Your task to perform on an android device: turn off translation in the chrome app Image 0: 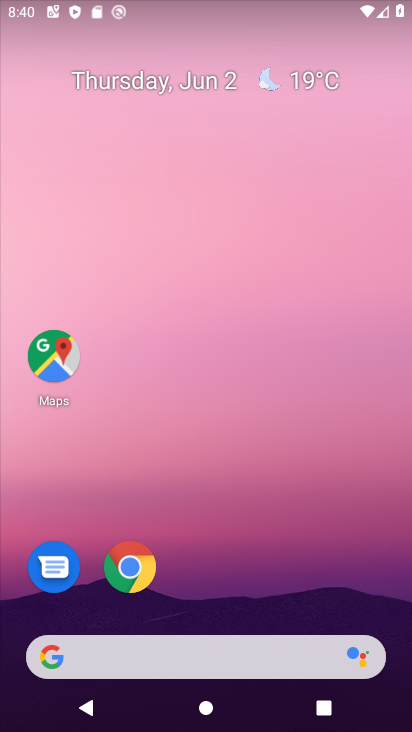
Step 0: click (132, 577)
Your task to perform on an android device: turn off translation in the chrome app Image 1: 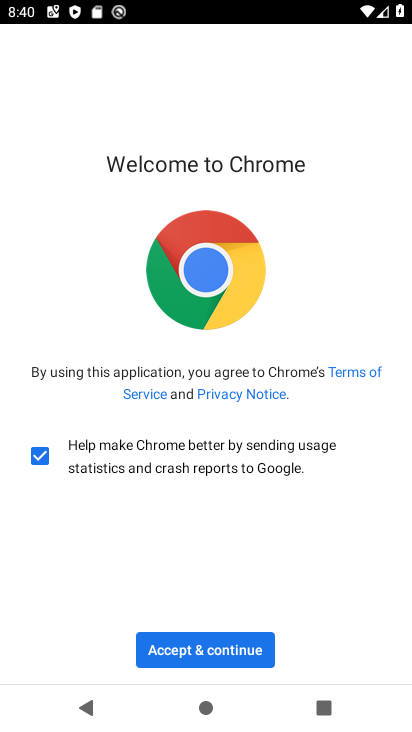
Step 1: click (246, 653)
Your task to perform on an android device: turn off translation in the chrome app Image 2: 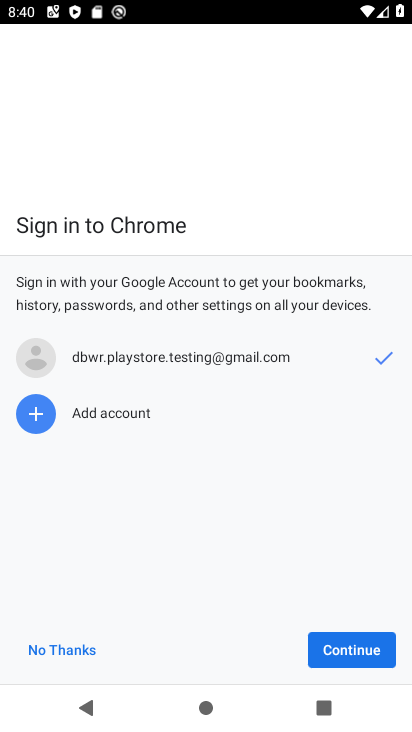
Step 2: click (352, 650)
Your task to perform on an android device: turn off translation in the chrome app Image 3: 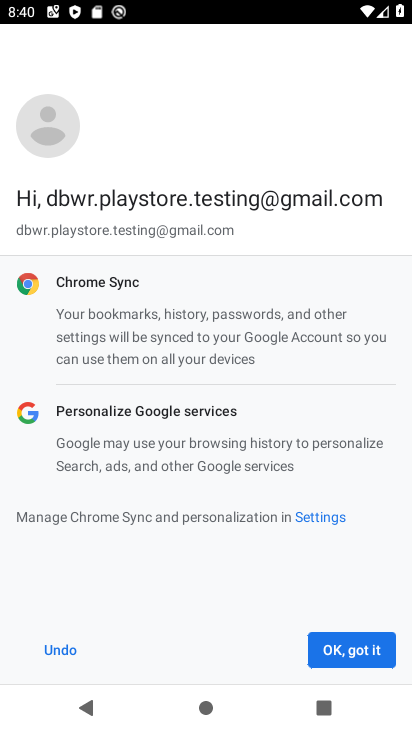
Step 3: click (342, 648)
Your task to perform on an android device: turn off translation in the chrome app Image 4: 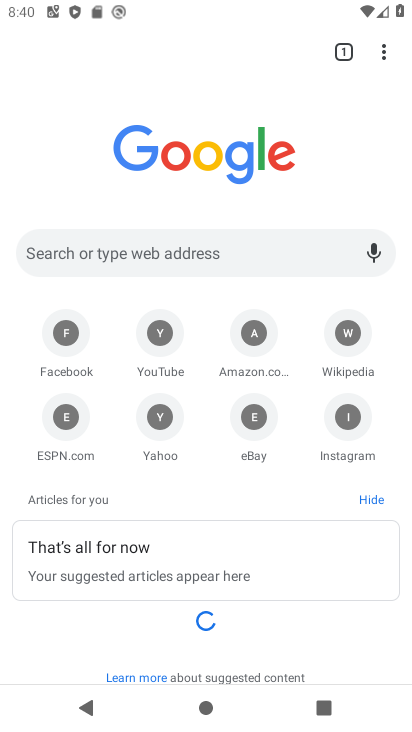
Step 4: click (390, 56)
Your task to perform on an android device: turn off translation in the chrome app Image 5: 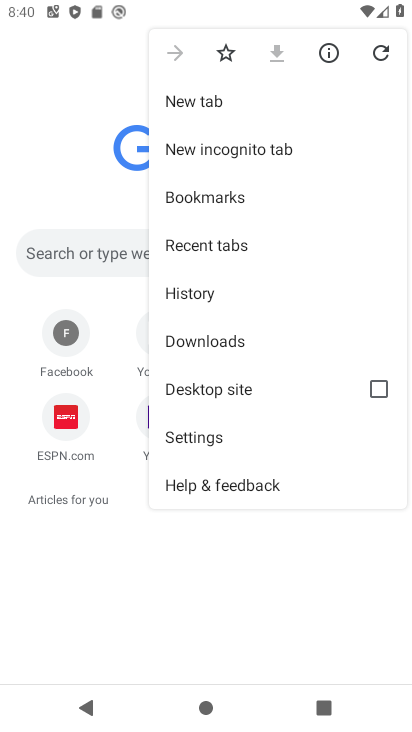
Step 5: click (208, 448)
Your task to perform on an android device: turn off translation in the chrome app Image 6: 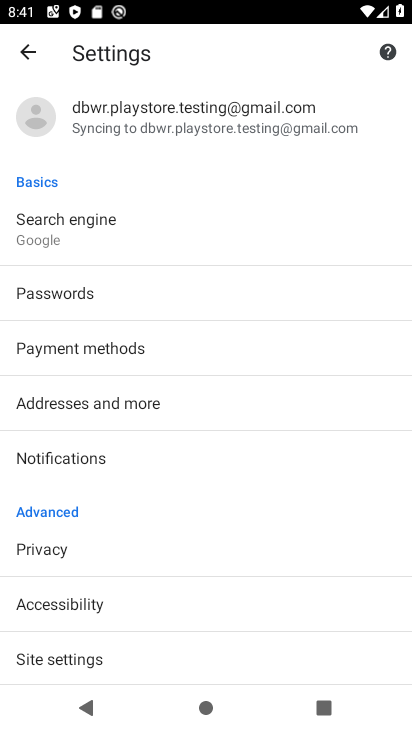
Step 6: drag from (113, 546) to (144, 298)
Your task to perform on an android device: turn off translation in the chrome app Image 7: 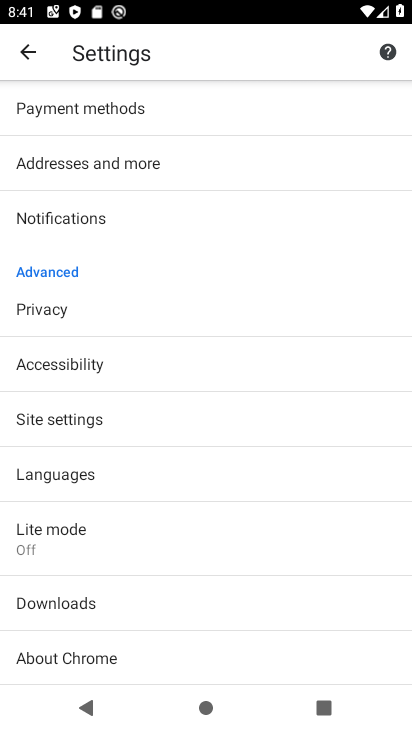
Step 7: click (74, 477)
Your task to perform on an android device: turn off translation in the chrome app Image 8: 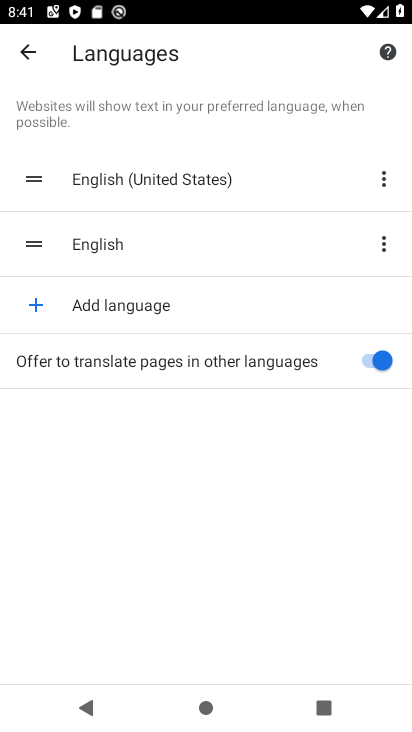
Step 8: click (345, 366)
Your task to perform on an android device: turn off translation in the chrome app Image 9: 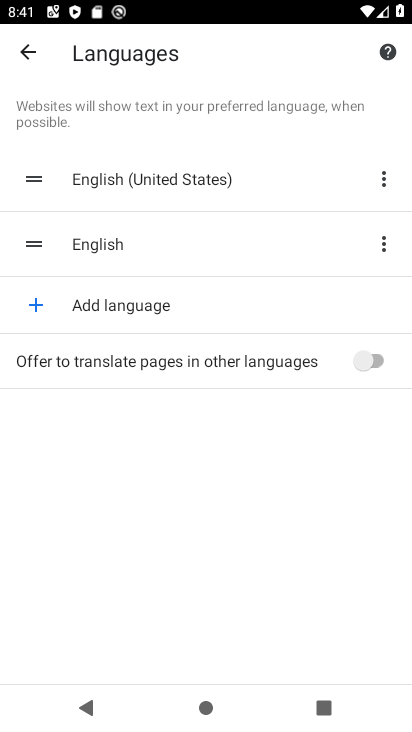
Step 9: task complete